Your task to perform on an android device: see sites visited before in the chrome app Image 0: 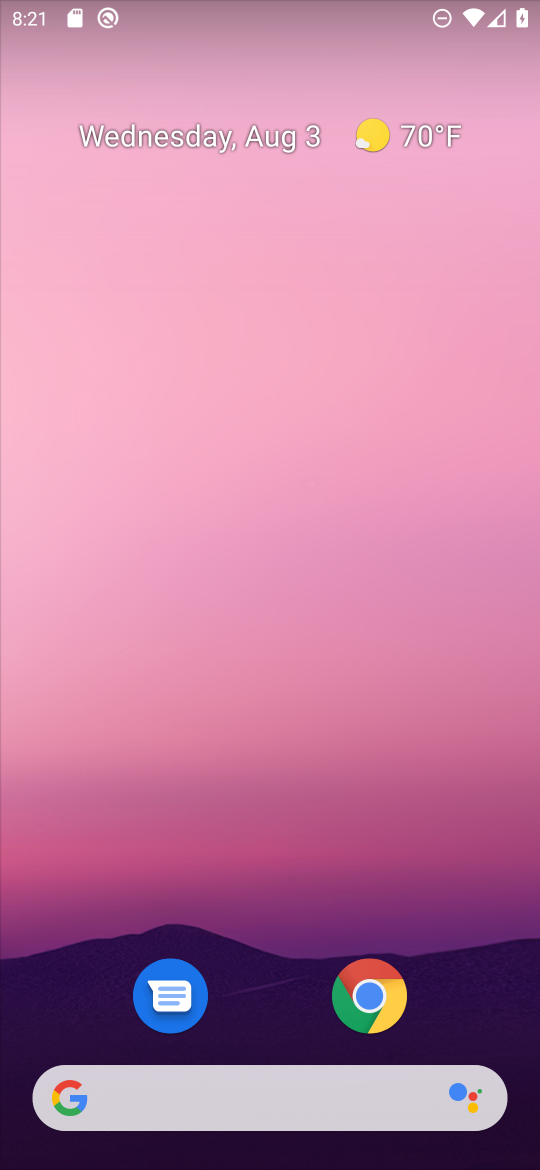
Step 0: click (375, 1003)
Your task to perform on an android device: see sites visited before in the chrome app Image 1: 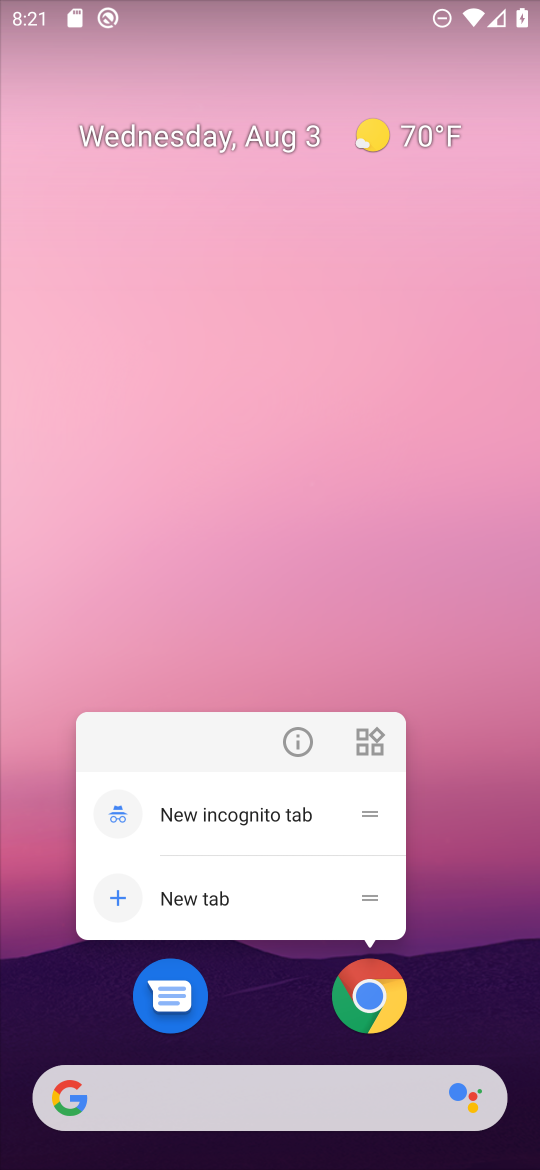
Step 1: click (375, 1003)
Your task to perform on an android device: see sites visited before in the chrome app Image 2: 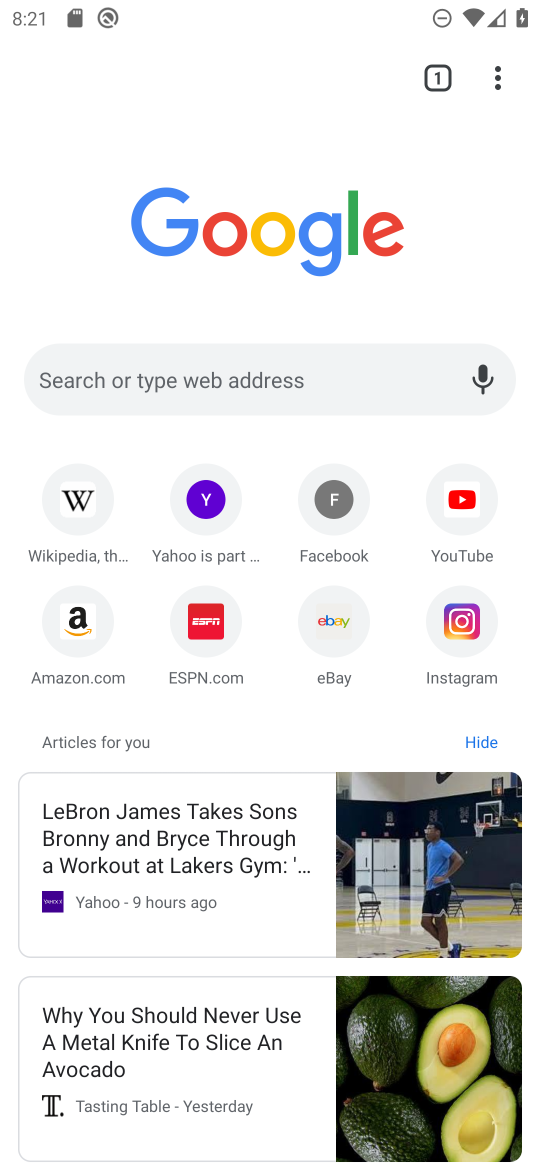
Step 2: click (491, 78)
Your task to perform on an android device: see sites visited before in the chrome app Image 3: 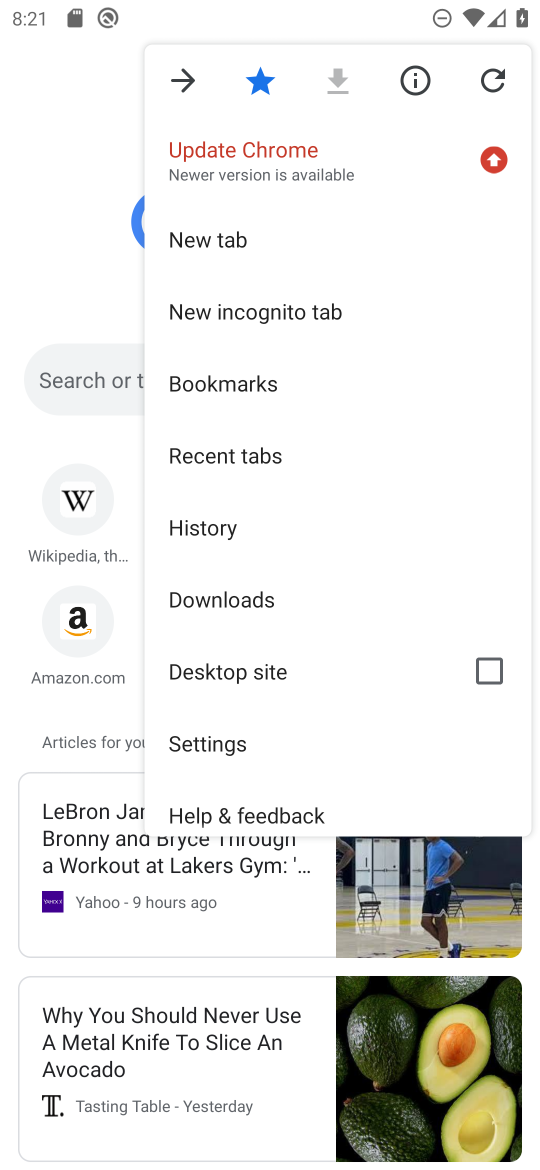
Step 3: click (282, 454)
Your task to perform on an android device: see sites visited before in the chrome app Image 4: 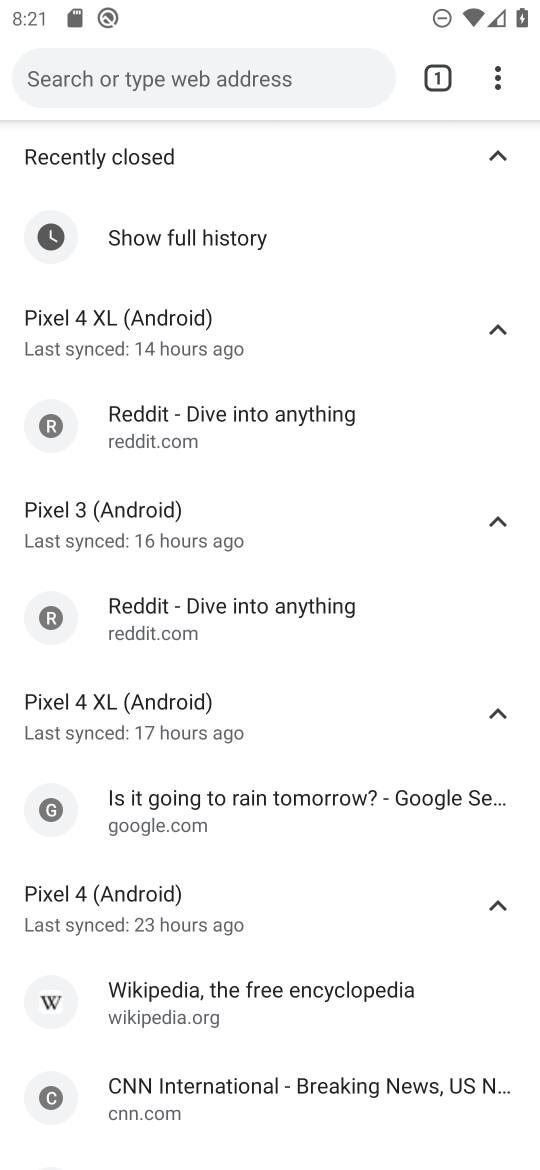
Step 4: task complete